Your task to perform on an android device: Open maps Image 0: 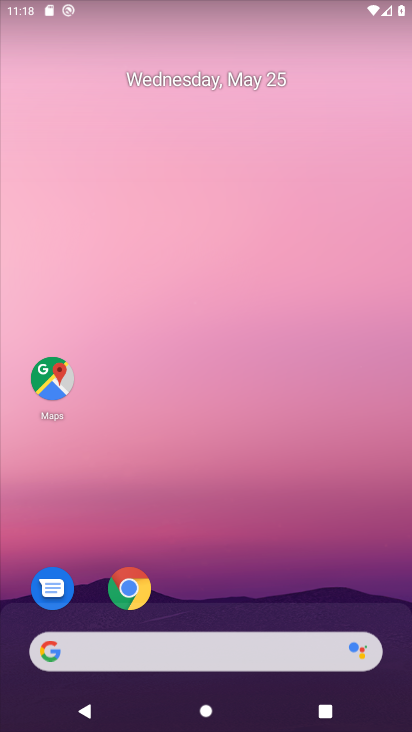
Step 0: drag from (249, 535) to (140, 0)
Your task to perform on an android device: Open maps Image 1: 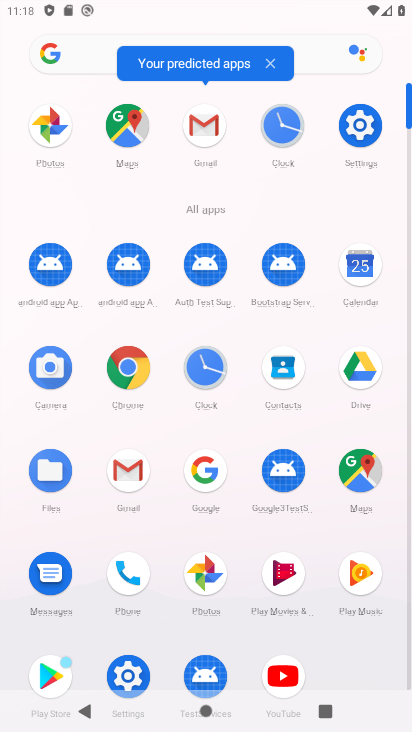
Step 1: click (126, 123)
Your task to perform on an android device: Open maps Image 2: 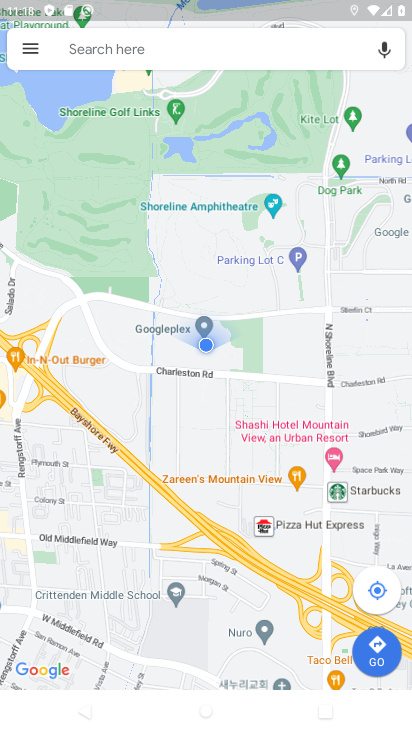
Step 2: task complete